Your task to perform on an android device: turn smart compose on in the gmail app Image 0: 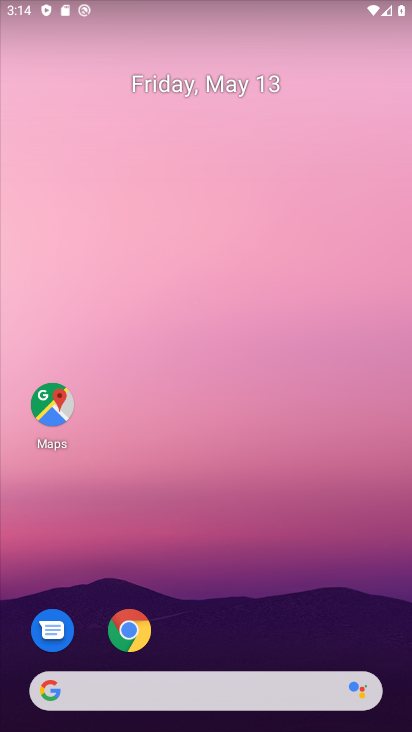
Step 0: drag from (214, 672) to (170, 135)
Your task to perform on an android device: turn smart compose on in the gmail app Image 1: 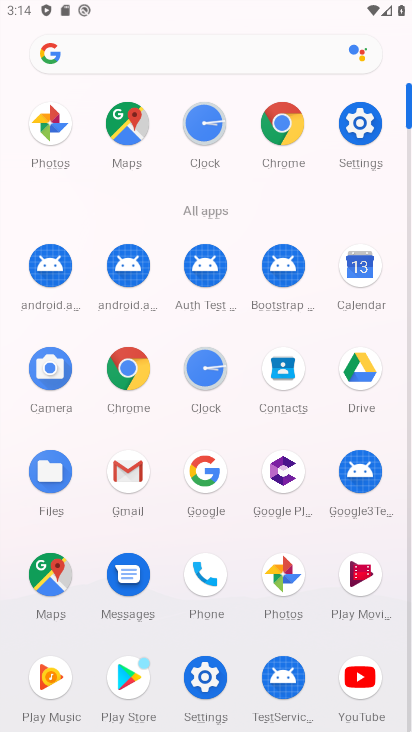
Step 1: click (120, 481)
Your task to perform on an android device: turn smart compose on in the gmail app Image 2: 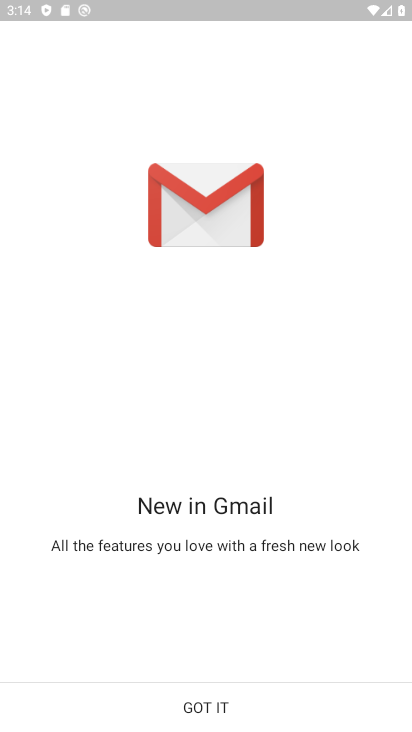
Step 2: click (237, 717)
Your task to perform on an android device: turn smart compose on in the gmail app Image 3: 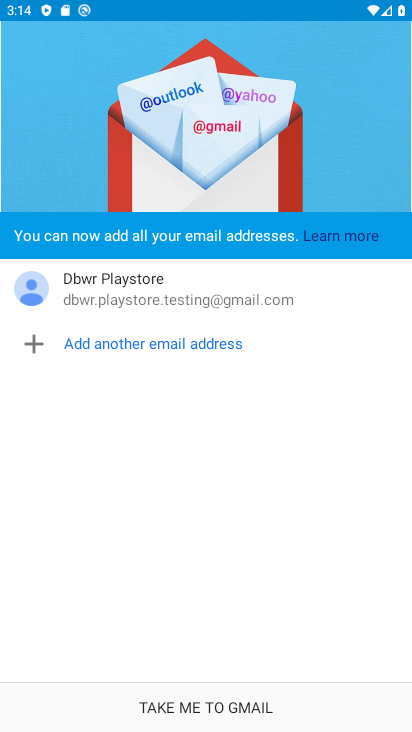
Step 3: click (239, 698)
Your task to perform on an android device: turn smart compose on in the gmail app Image 4: 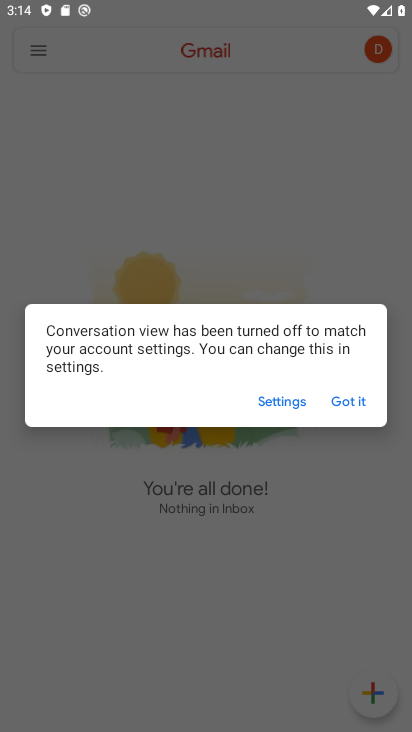
Step 4: click (336, 398)
Your task to perform on an android device: turn smart compose on in the gmail app Image 5: 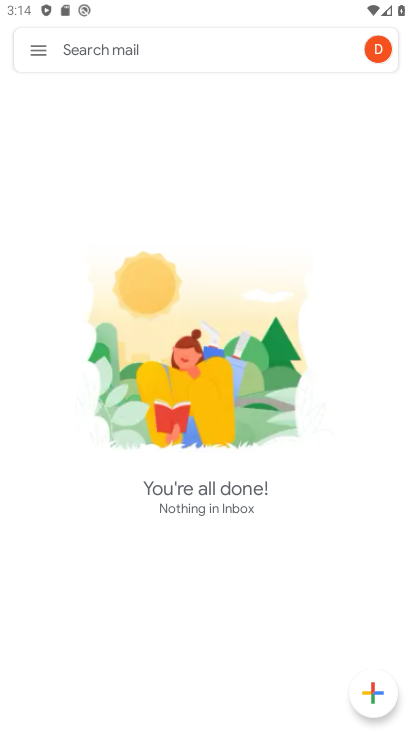
Step 5: click (42, 36)
Your task to perform on an android device: turn smart compose on in the gmail app Image 6: 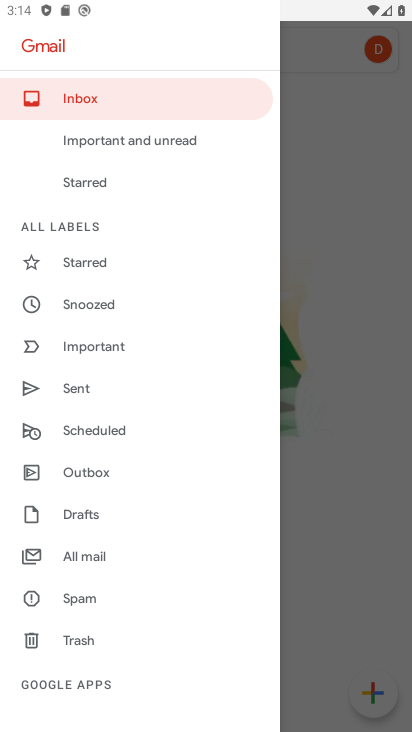
Step 6: drag from (130, 554) to (68, 195)
Your task to perform on an android device: turn smart compose on in the gmail app Image 7: 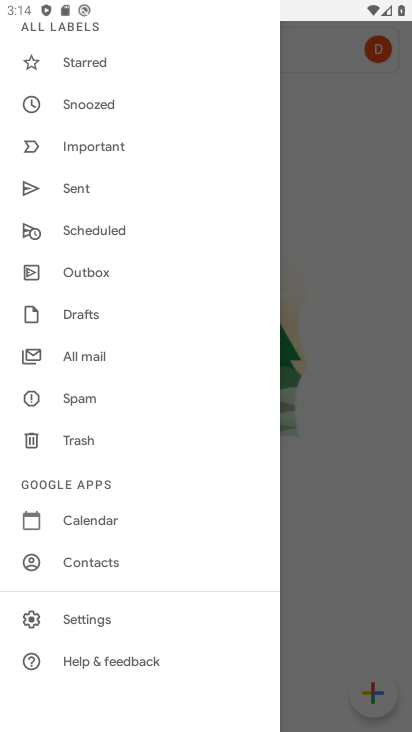
Step 7: click (111, 621)
Your task to perform on an android device: turn smart compose on in the gmail app Image 8: 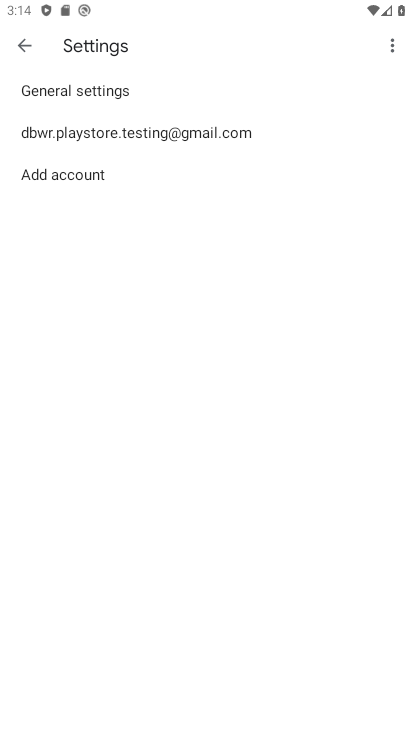
Step 8: click (85, 123)
Your task to perform on an android device: turn smart compose on in the gmail app Image 9: 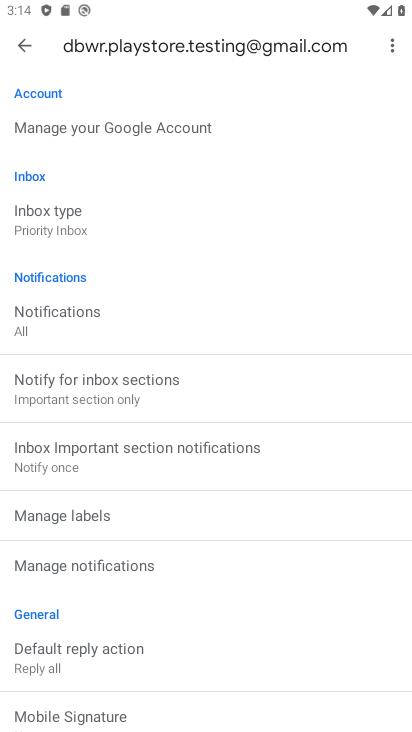
Step 9: task complete